Your task to perform on an android device: Go to Yahoo.com Image 0: 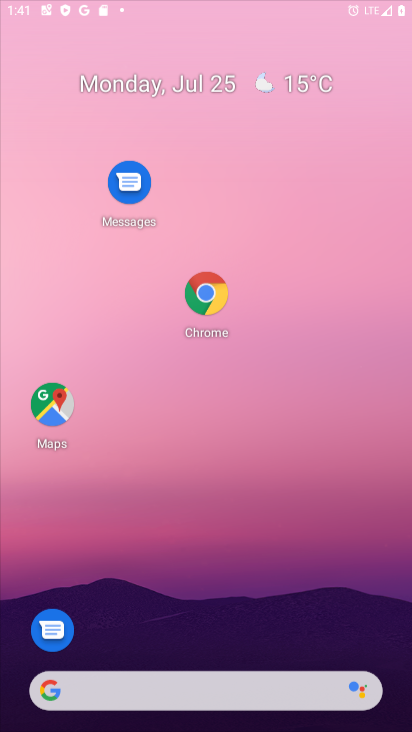
Step 0: click (301, 68)
Your task to perform on an android device: Go to Yahoo.com Image 1: 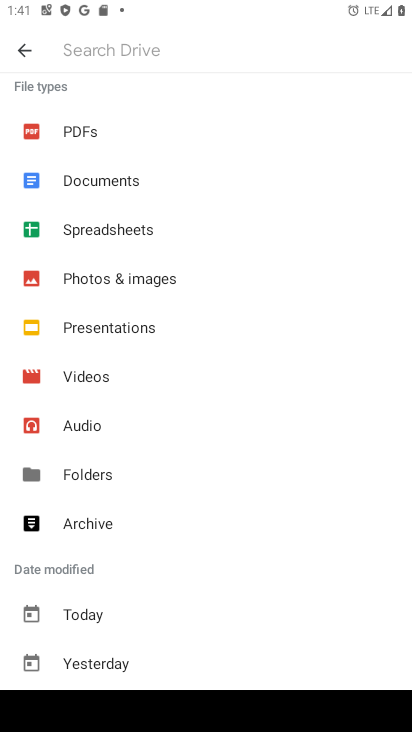
Step 1: press home button
Your task to perform on an android device: Go to Yahoo.com Image 2: 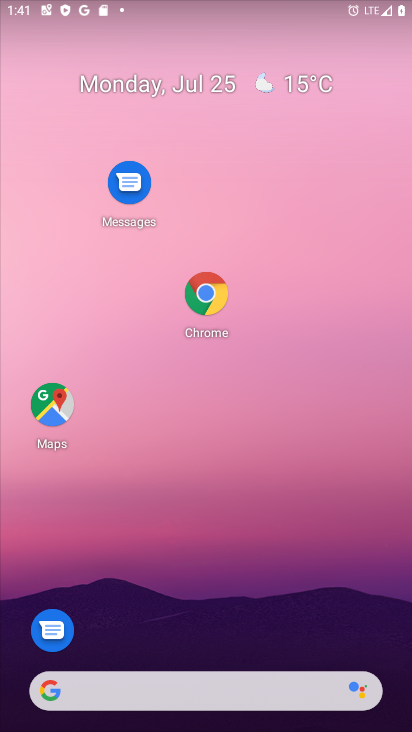
Step 2: drag from (241, 600) to (289, 74)
Your task to perform on an android device: Go to Yahoo.com Image 3: 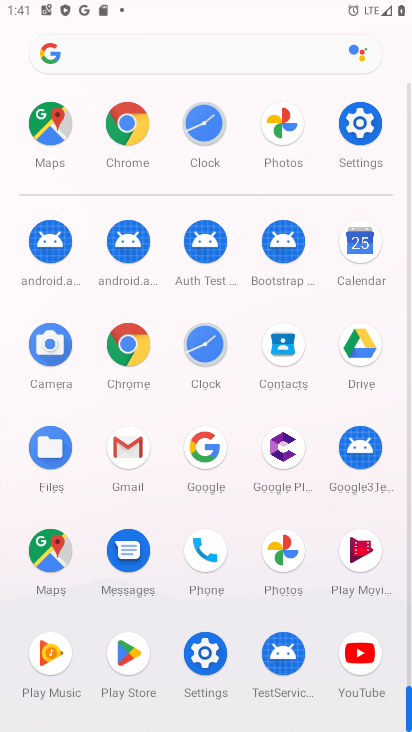
Step 3: click (125, 132)
Your task to perform on an android device: Go to Yahoo.com Image 4: 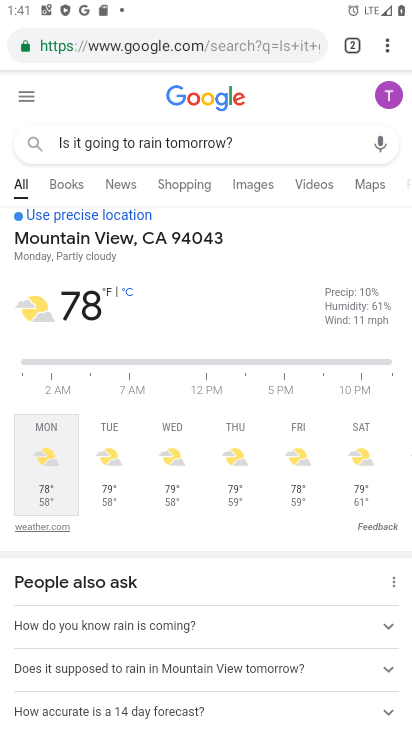
Step 4: click (171, 41)
Your task to perform on an android device: Go to Yahoo.com Image 5: 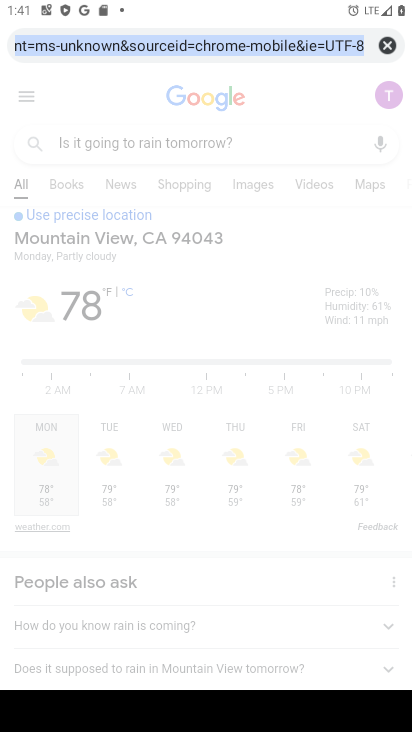
Step 5: click (391, 48)
Your task to perform on an android device: Go to Yahoo.com Image 6: 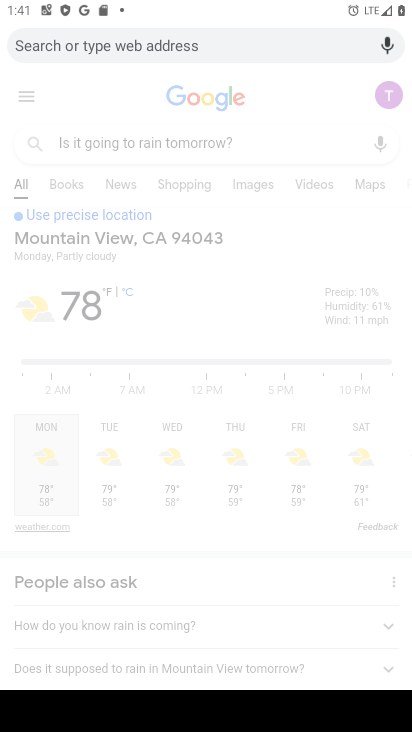
Step 6: type "Yahoo.com"
Your task to perform on an android device: Go to Yahoo.com Image 7: 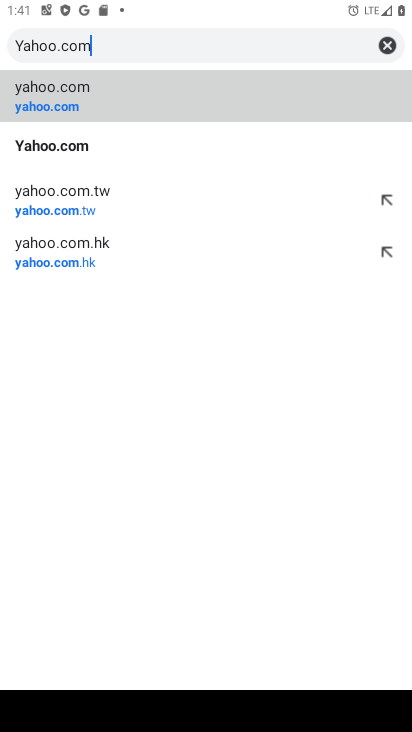
Step 7: click (58, 108)
Your task to perform on an android device: Go to Yahoo.com Image 8: 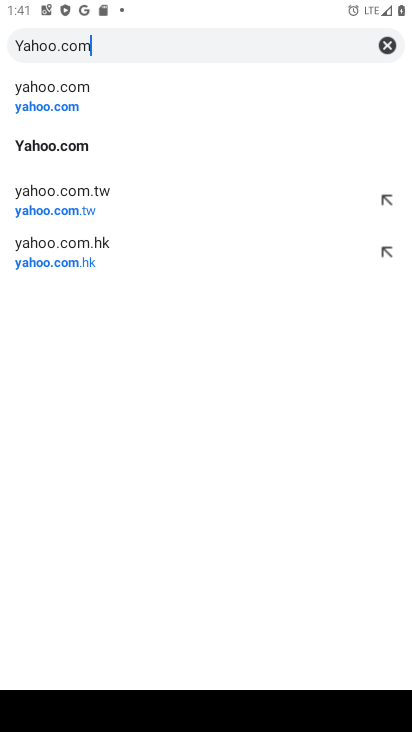
Step 8: click (65, 101)
Your task to perform on an android device: Go to Yahoo.com Image 9: 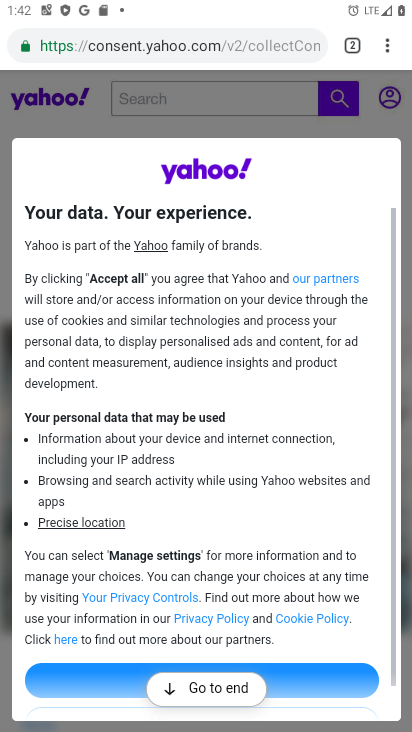
Step 9: click (340, 682)
Your task to perform on an android device: Go to Yahoo.com Image 10: 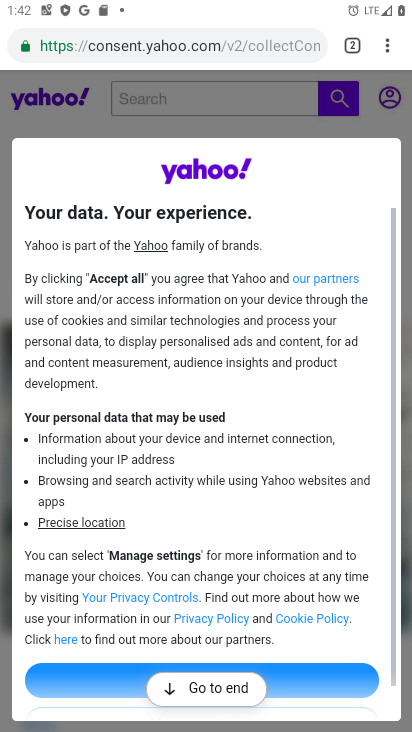
Step 10: click (315, 677)
Your task to perform on an android device: Go to Yahoo.com Image 11: 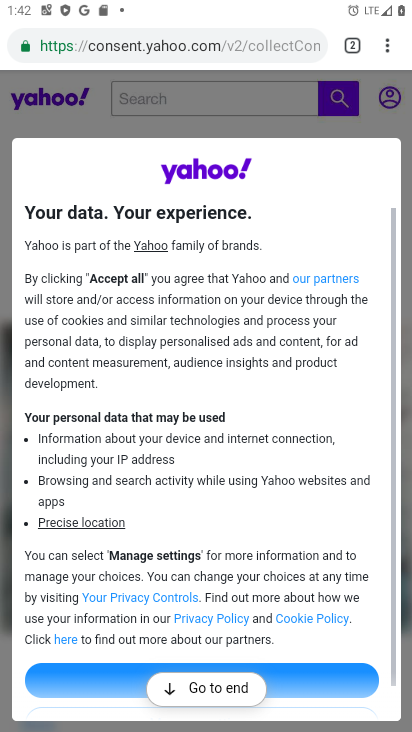
Step 11: drag from (272, 566) to (278, 170)
Your task to perform on an android device: Go to Yahoo.com Image 12: 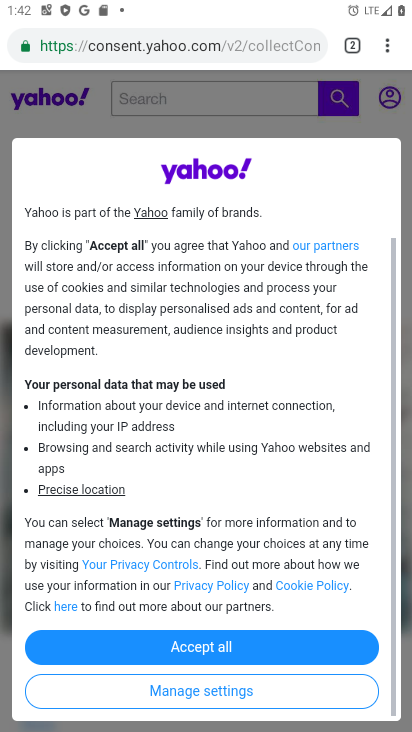
Step 12: click (254, 644)
Your task to perform on an android device: Go to Yahoo.com Image 13: 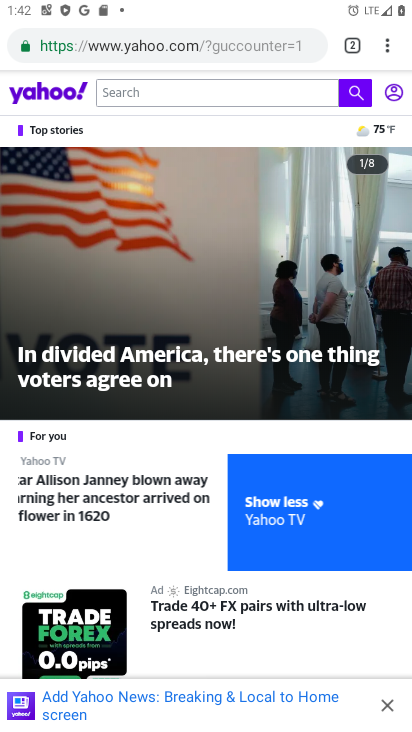
Step 13: task complete